Your task to perform on an android device: Open the web browser Image 0: 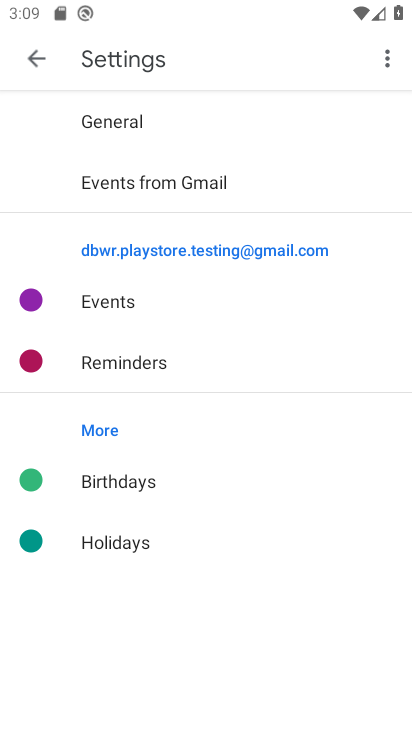
Step 0: press home button
Your task to perform on an android device: Open the web browser Image 1: 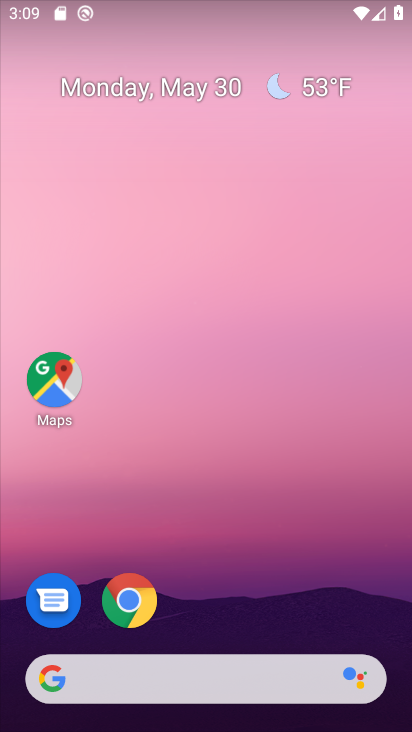
Step 1: drag from (301, 588) to (309, 179)
Your task to perform on an android device: Open the web browser Image 2: 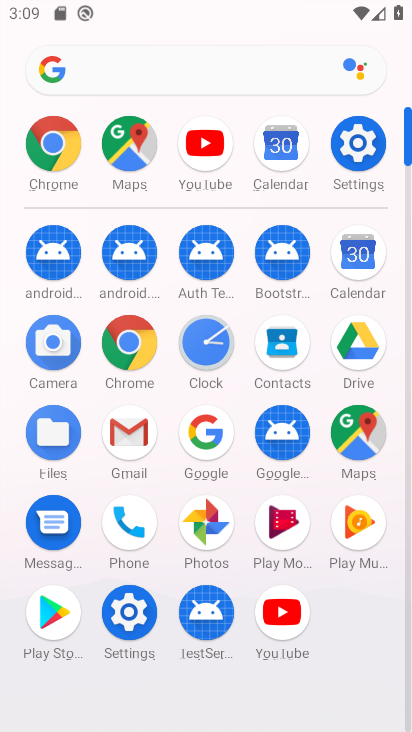
Step 2: click (28, 152)
Your task to perform on an android device: Open the web browser Image 3: 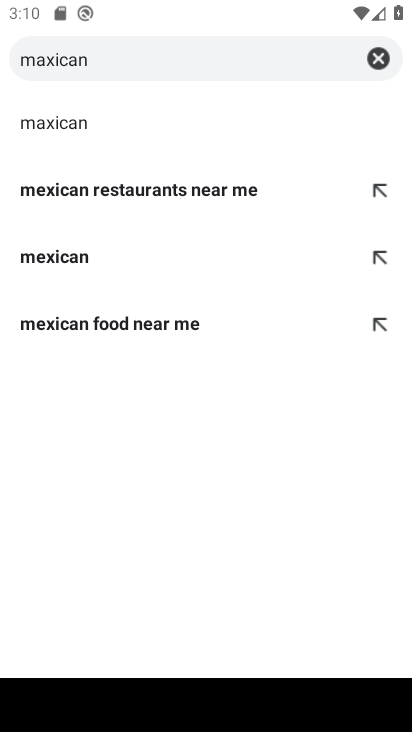
Step 3: task complete